Your task to perform on an android device: Go to Wikipedia Image 0: 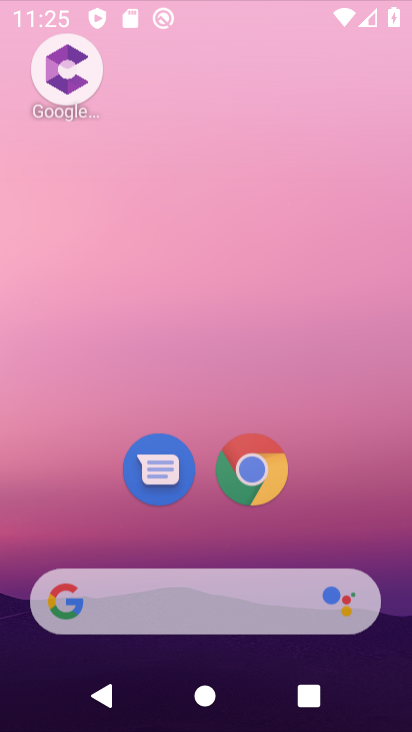
Step 0: drag from (383, 147) to (363, 230)
Your task to perform on an android device: Go to Wikipedia Image 1: 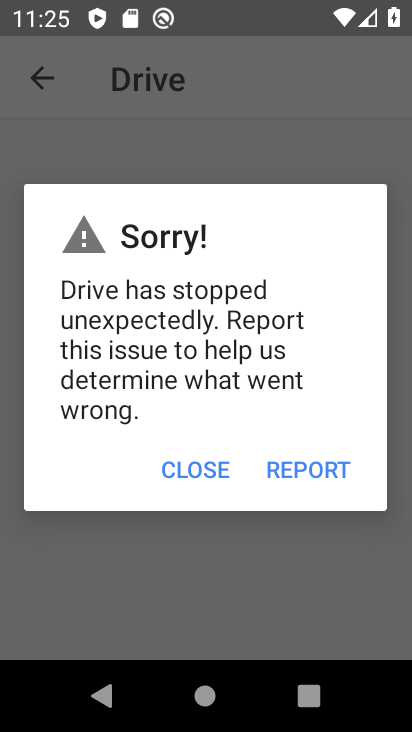
Step 1: press home button
Your task to perform on an android device: Go to Wikipedia Image 2: 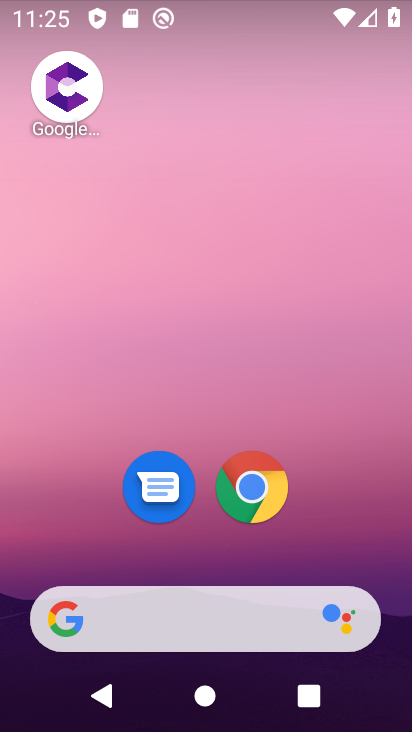
Step 2: click (259, 482)
Your task to perform on an android device: Go to Wikipedia Image 3: 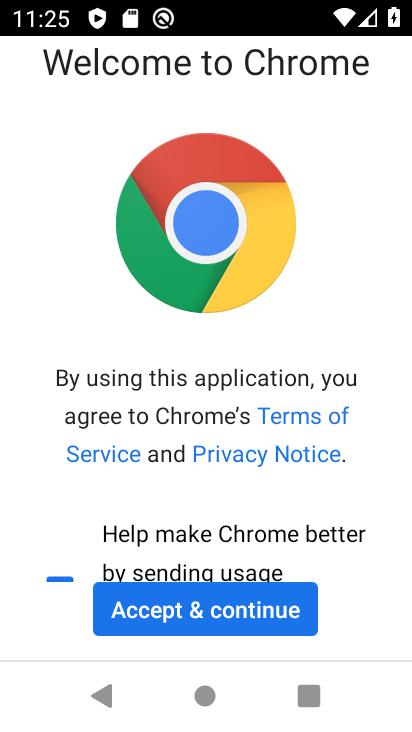
Step 3: click (272, 614)
Your task to perform on an android device: Go to Wikipedia Image 4: 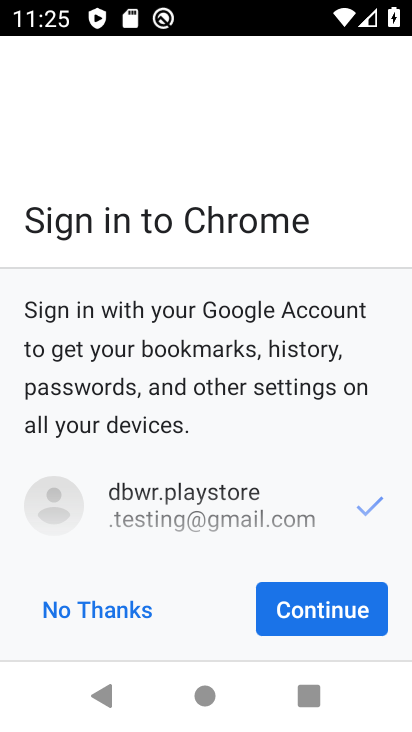
Step 4: click (322, 581)
Your task to perform on an android device: Go to Wikipedia Image 5: 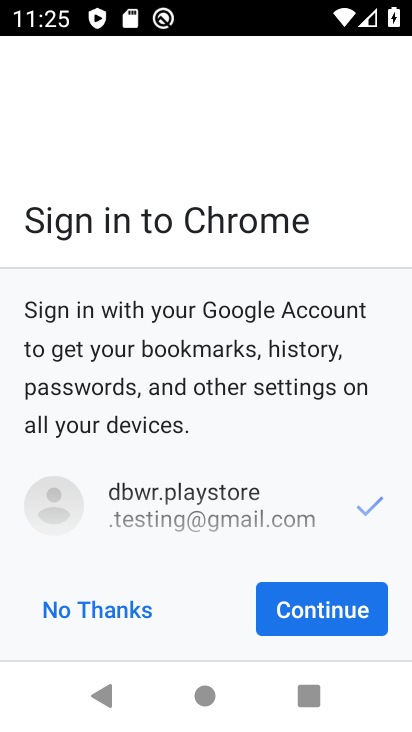
Step 5: click (321, 595)
Your task to perform on an android device: Go to Wikipedia Image 6: 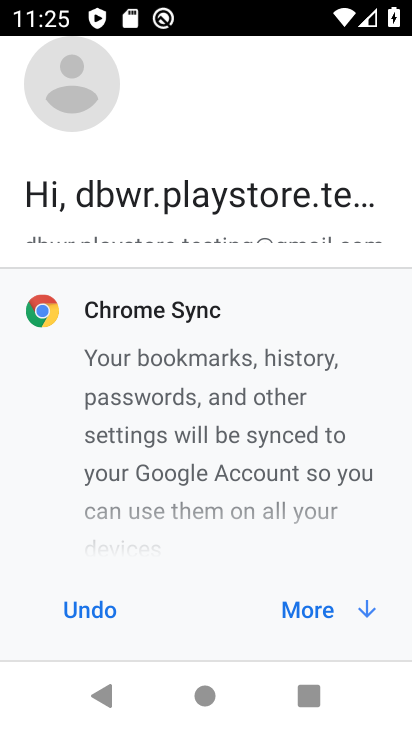
Step 6: click (320, 596)
Your task to perform on an android device: Go to Wikipedia Image 7: 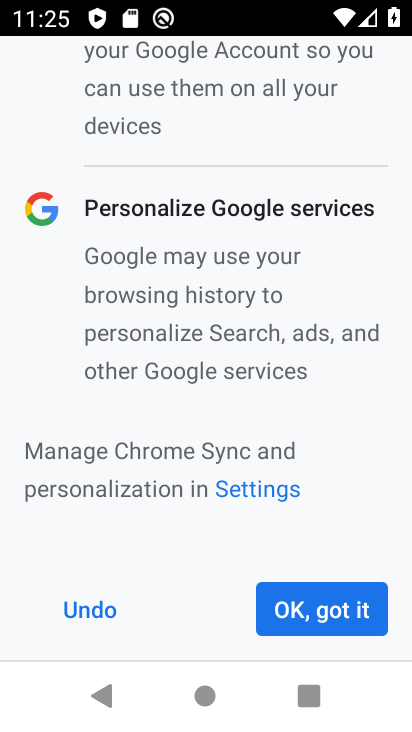
Step 7: click (320, 596)
Your task to perform on an android device: Go to Wikipedia Image 8: 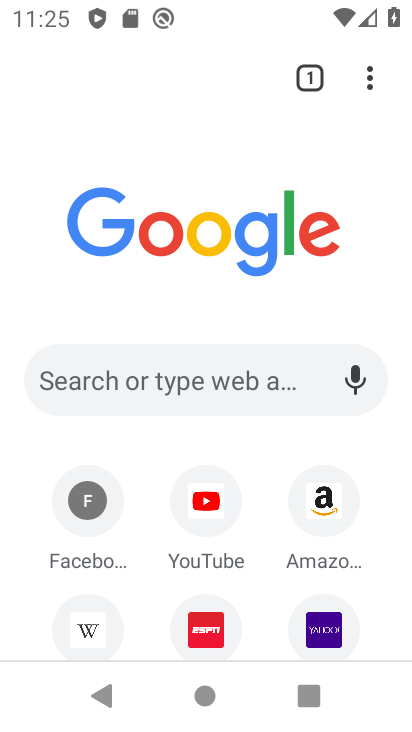
Step 8: drag from (269, 462) to (275, 316)
Your task to perform on an android device: Go to Wikipedia Image 9: 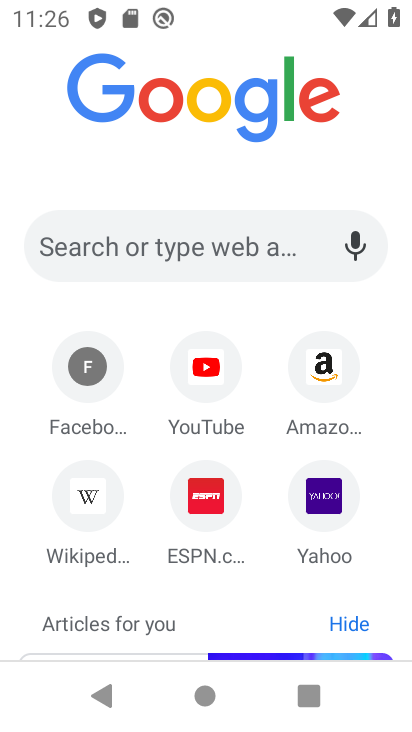
Step 9: click (102, 498)
Your task to perform on an android device: Go to Wikipedia Image 10: 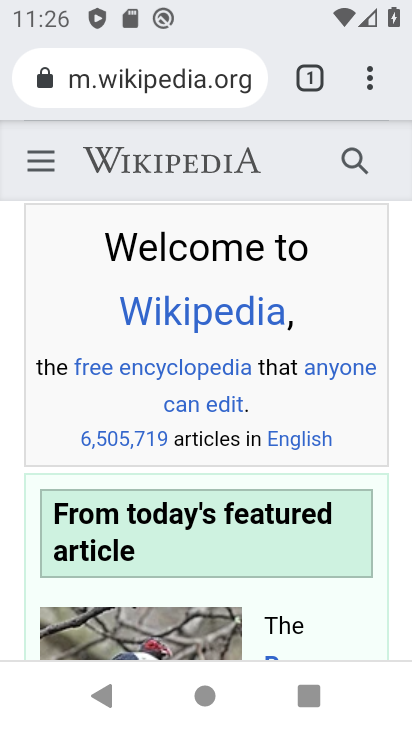
Step 10: task complete